Your task to perform on an android device: What's on my calendar tomorrow? Image 0: 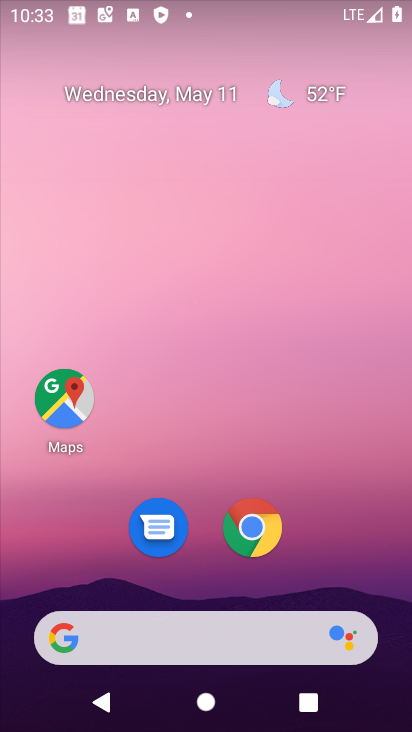
Step 0: drag from (347, 468) to (340, 42)
Your task to perform on an android device: What's on my calendar tomorrow? Image 1: 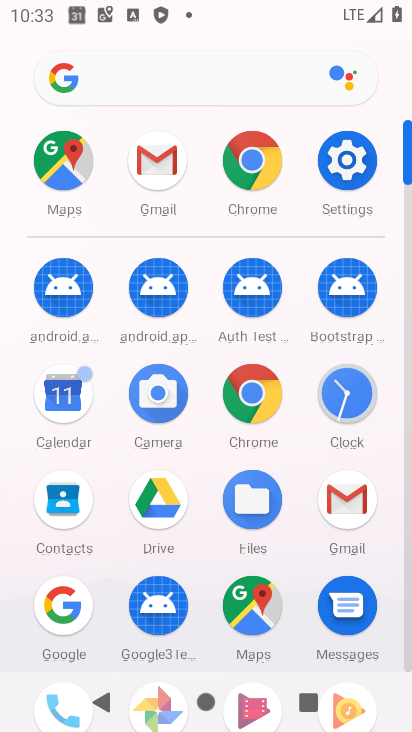
Step 1: click (83, 413)
Your task to perform on an android device: What's on my calendar tomorrow? Image 2: 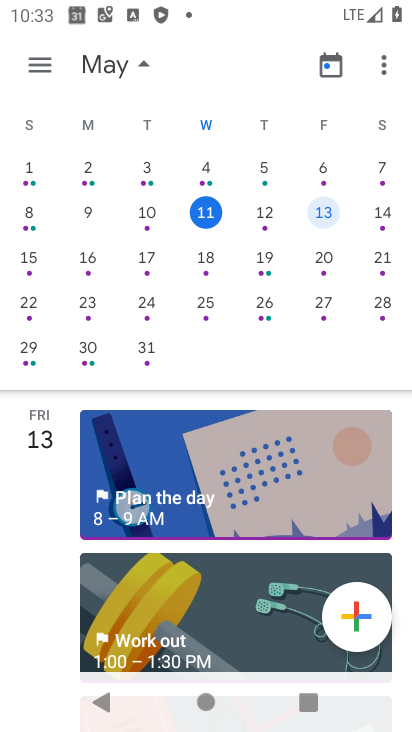
Step 2: click (263, 227)
Your task to perform on an android device: What's on my calendar tomorrow? Image 3: 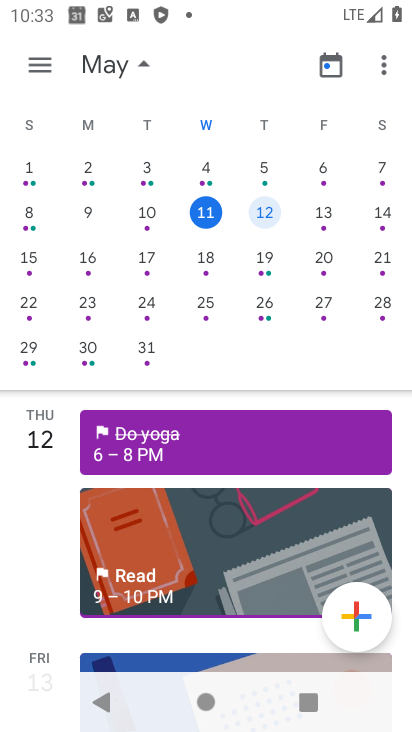
Step 3: task complete